Your task to perform on an android device: Open Google Chrome Image 0: 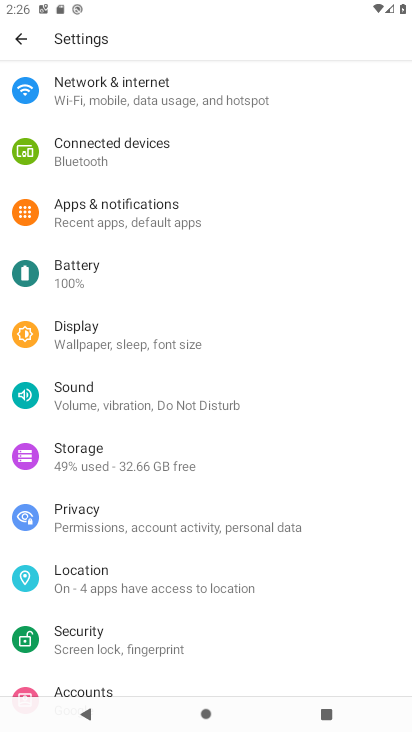
Step 0: press home button
Your task to perform on an android device: Open Google Chrome Image 1: 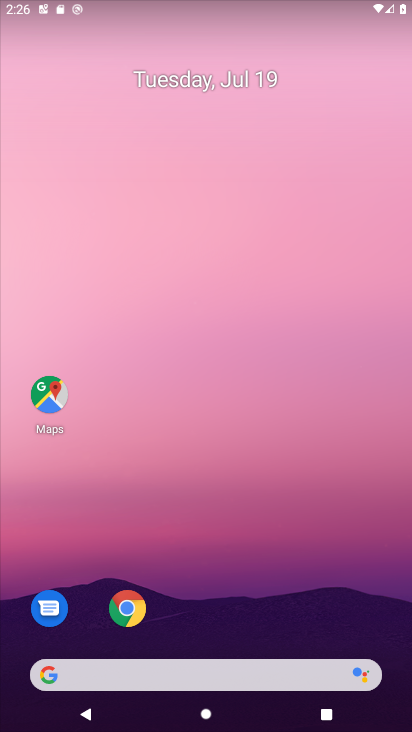
Step 1: click (122, 606)
Your task to perform on an android device: Open Google Chrome Image 2: 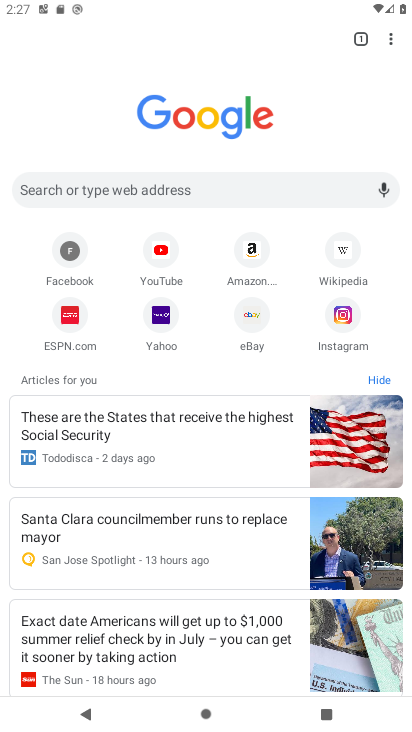
Step 2: task complete